Your task to perform on an android device: Add apple airpods to the cart on bestbuy, then select checkout. Image 0: 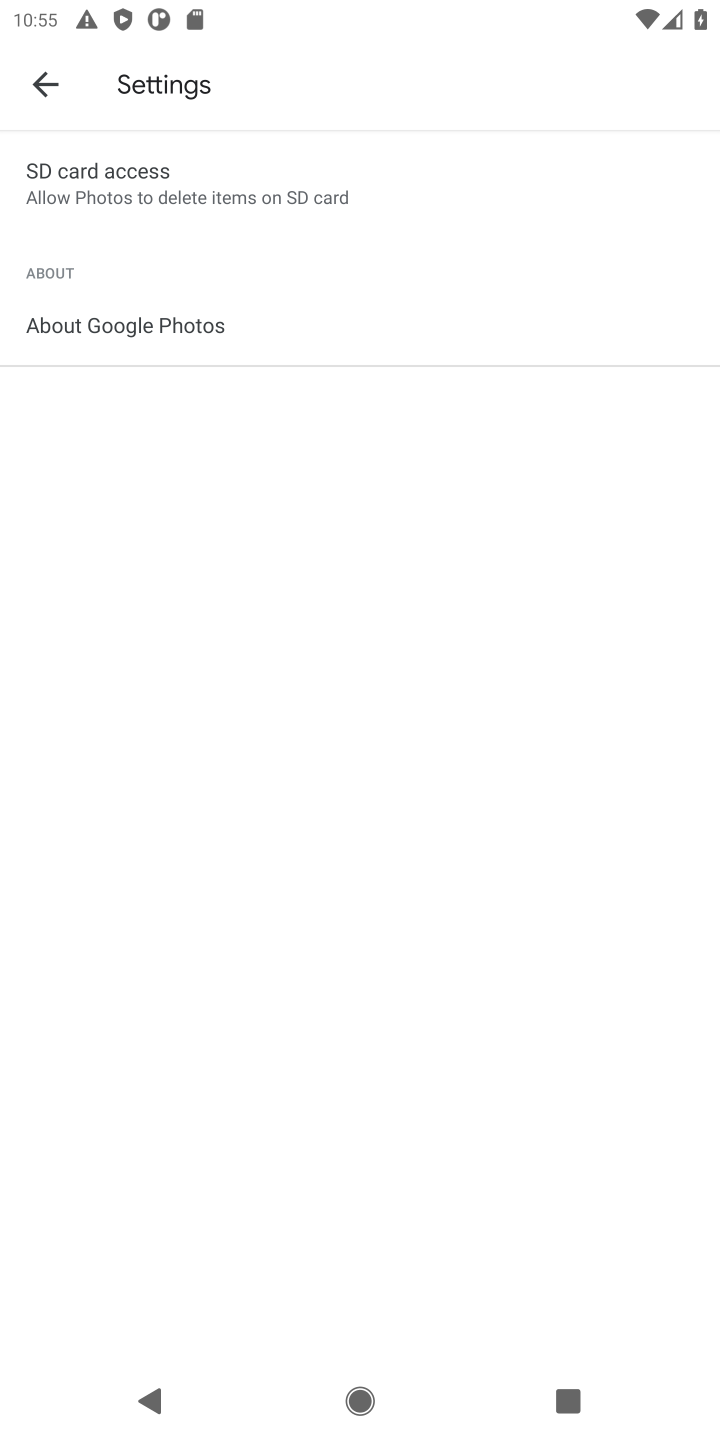
Step 0: press home button
Your task to perform on an android device: Add apple airpods to the cart on bestbuy, then select checkout. Image 1: 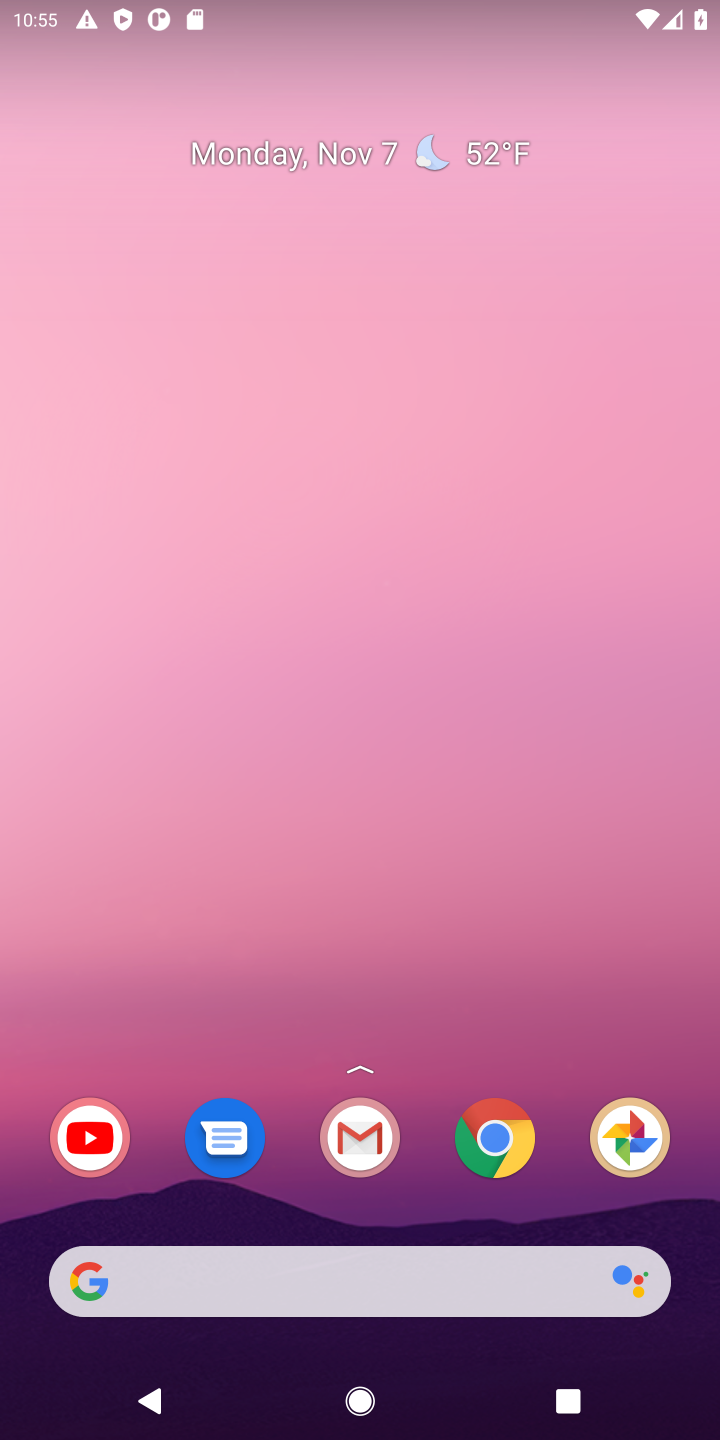
Step 1: click (504, 1167)
Your task to perform on an android device: Add apple airpods to the cart on bestbuy, then select checkout. Image 2: 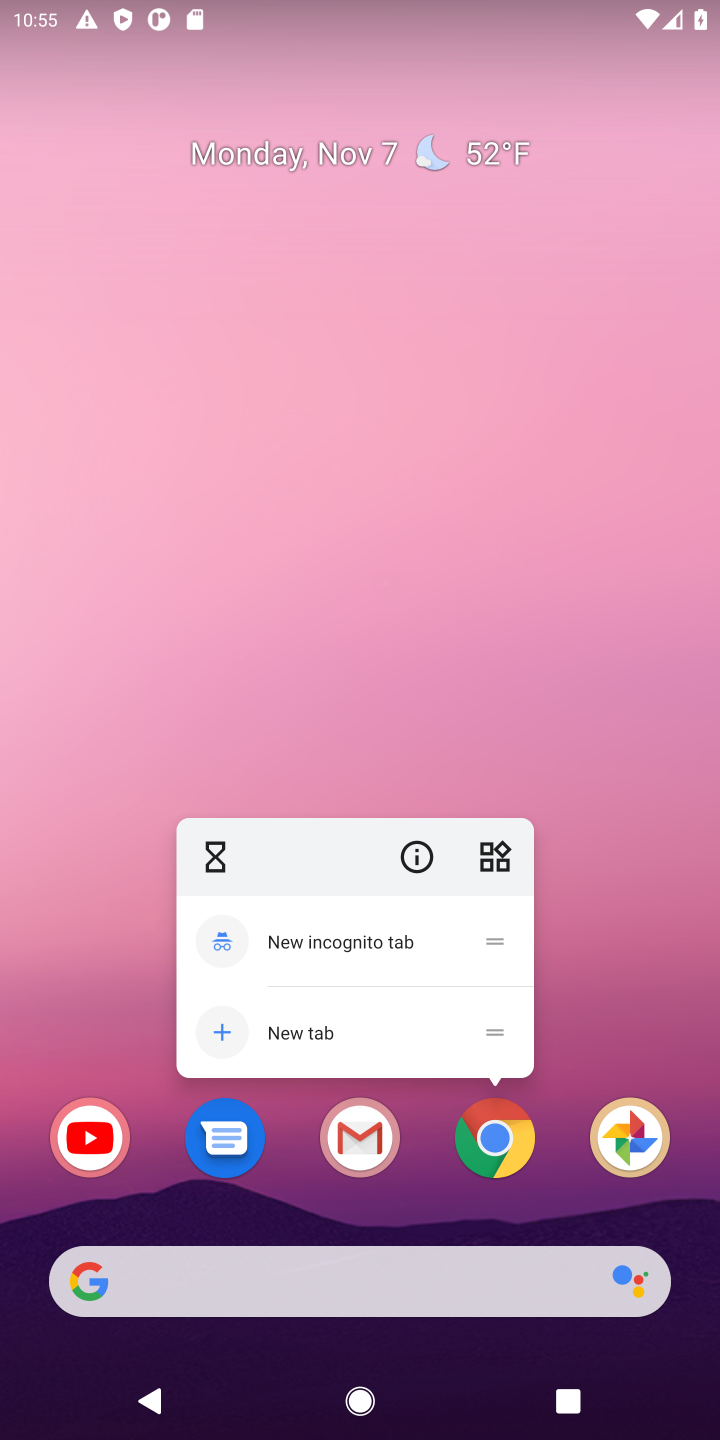
Step 2: click (511, 1159)
Your task to perform on an android device: Add apple airpods to the cart on bestbuy, then select checkout. Image 3: 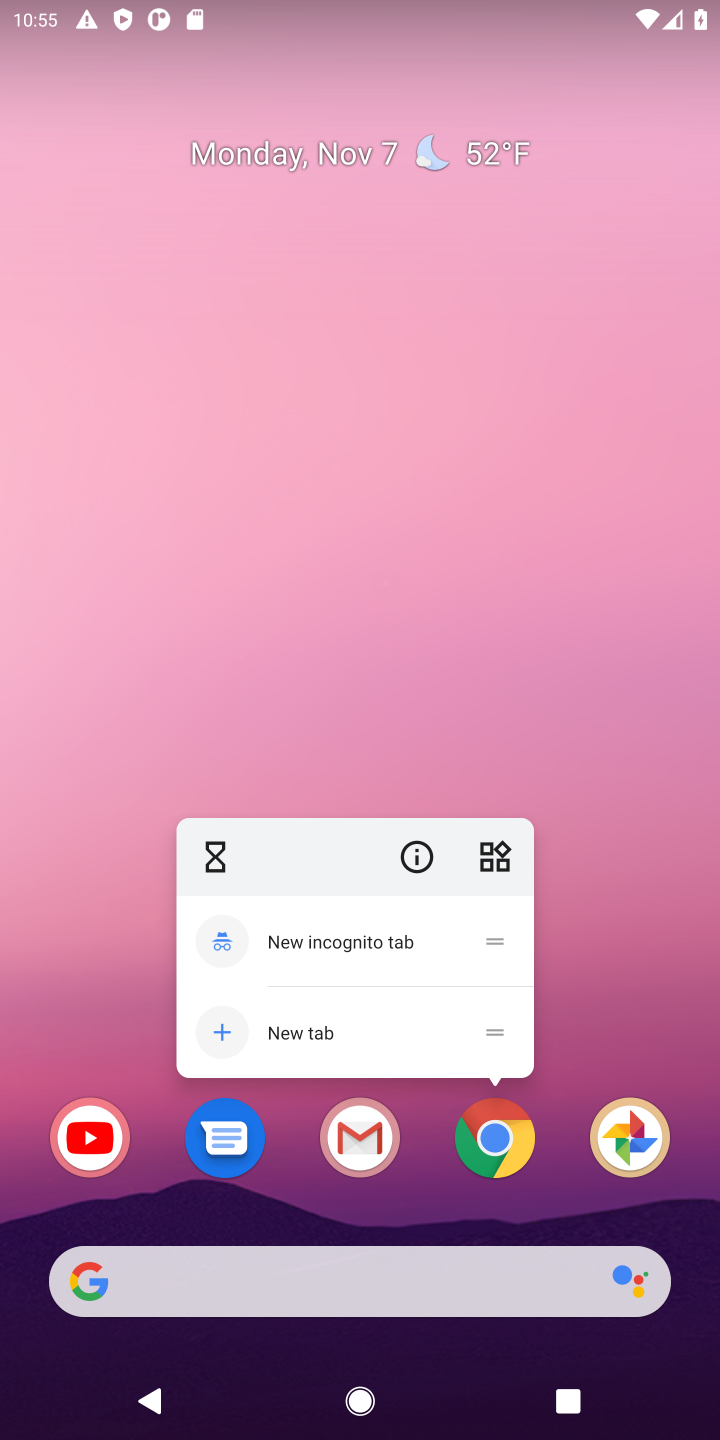
Step 3: click (484, 1165)
Your task to perform on an android device: Add apple airpods to the cart on bestbuy, then select checkout. Image 4: 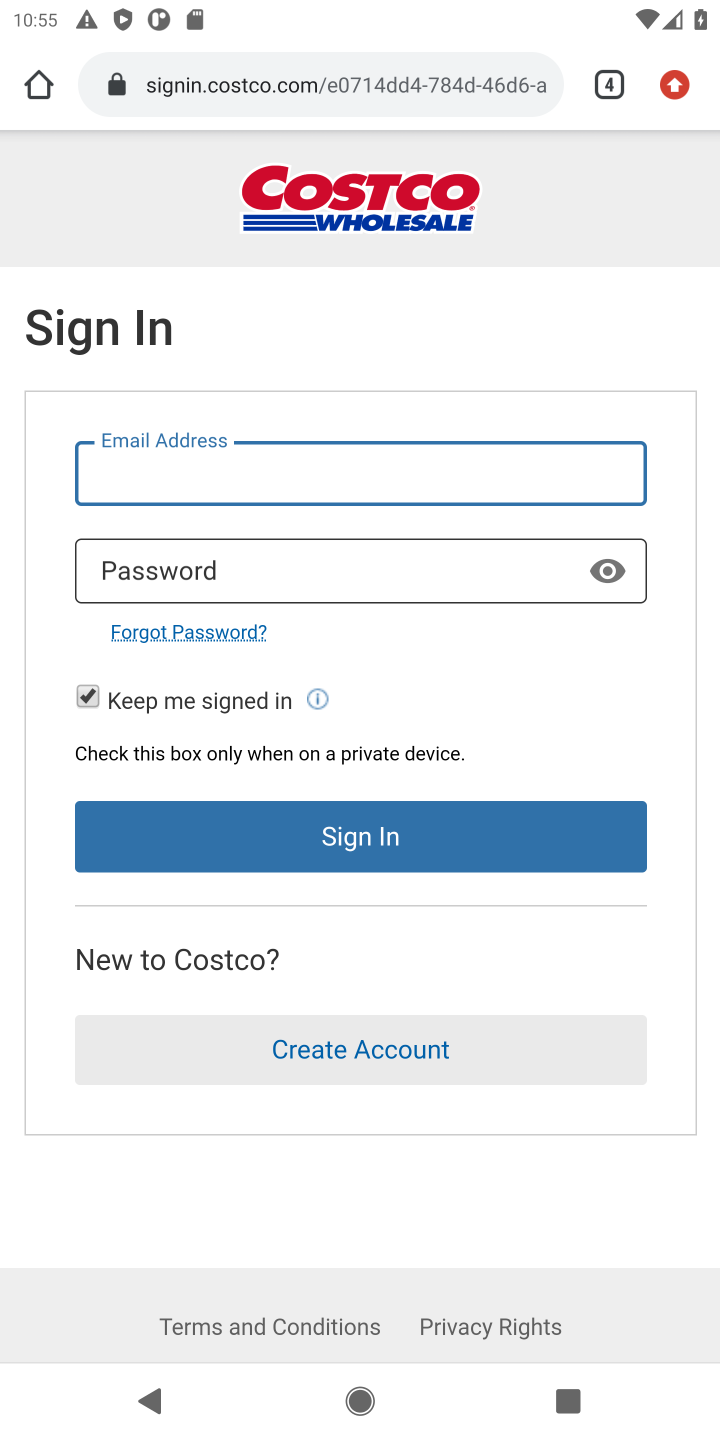
Step 4: click (244, 88)
Your task to perform on an android device: Add apple airpods to the cart on bestbuy, then select checkout. Image 5: 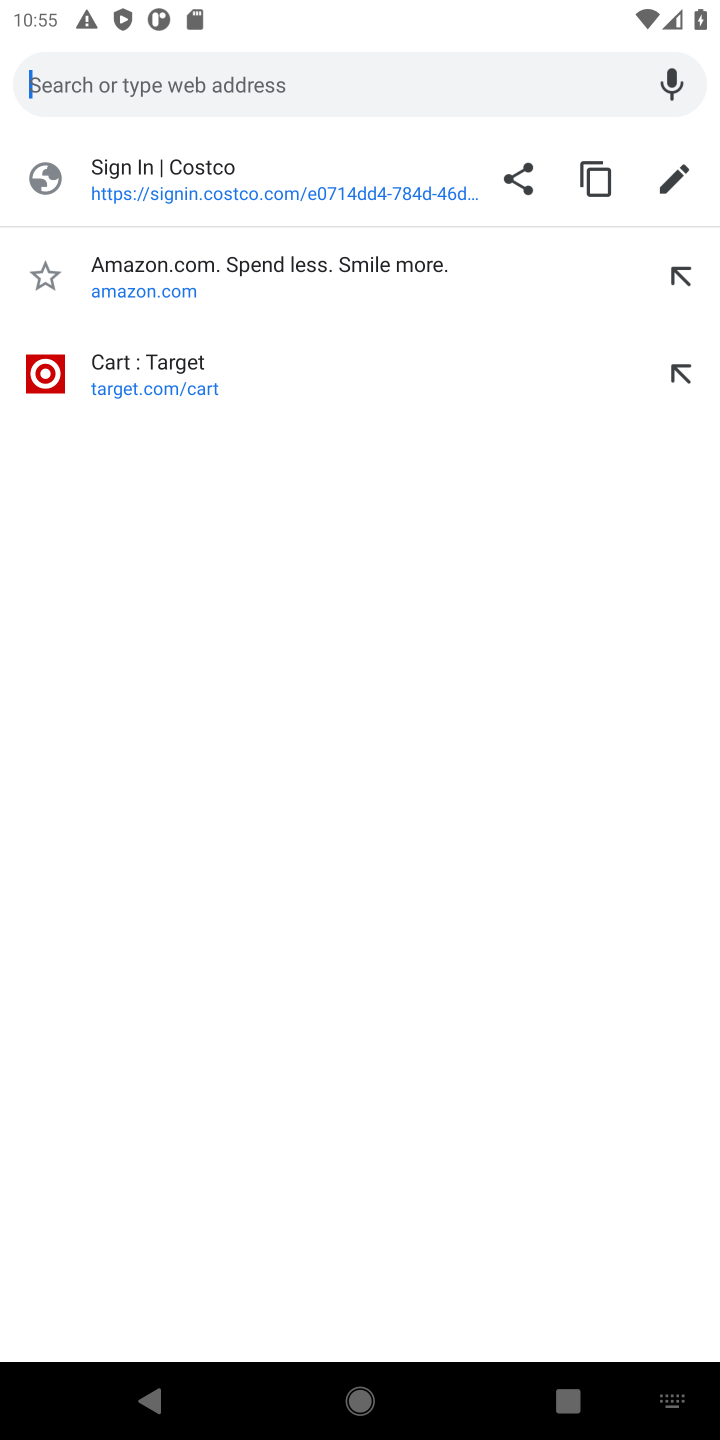
Step 5: type "bestbuy"
Your task to perform on an android device: Add apple airpods to the cart on bestbuy, then select checkout. Image 6: 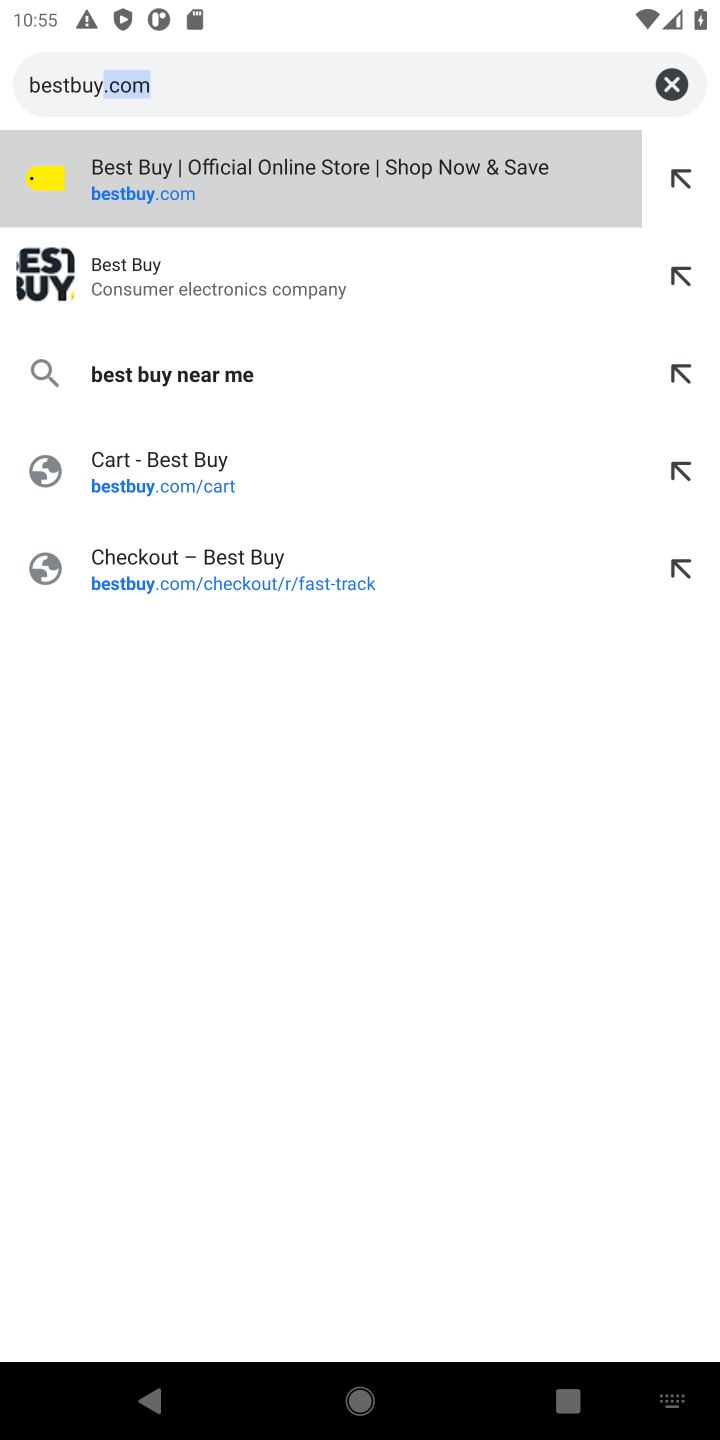
Step 6: click (133, 269)
Your task to perform on an android device: Add apple airpods to the cart on bestbuy, then select checkout. Image 7: 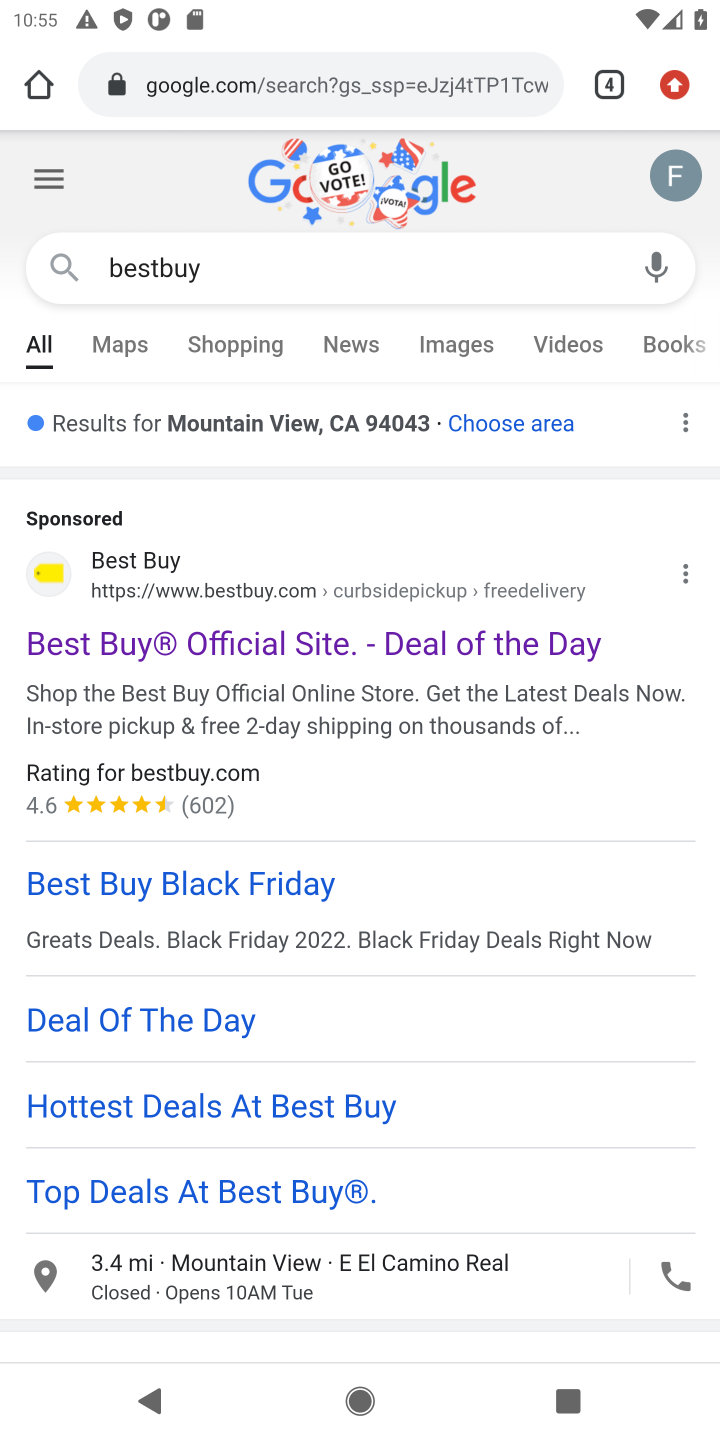
Step 7: click (77, 646)
Your task to perform on an android device: Add apple airpods to the cart on bestbuy, then select checkout. Image 8: 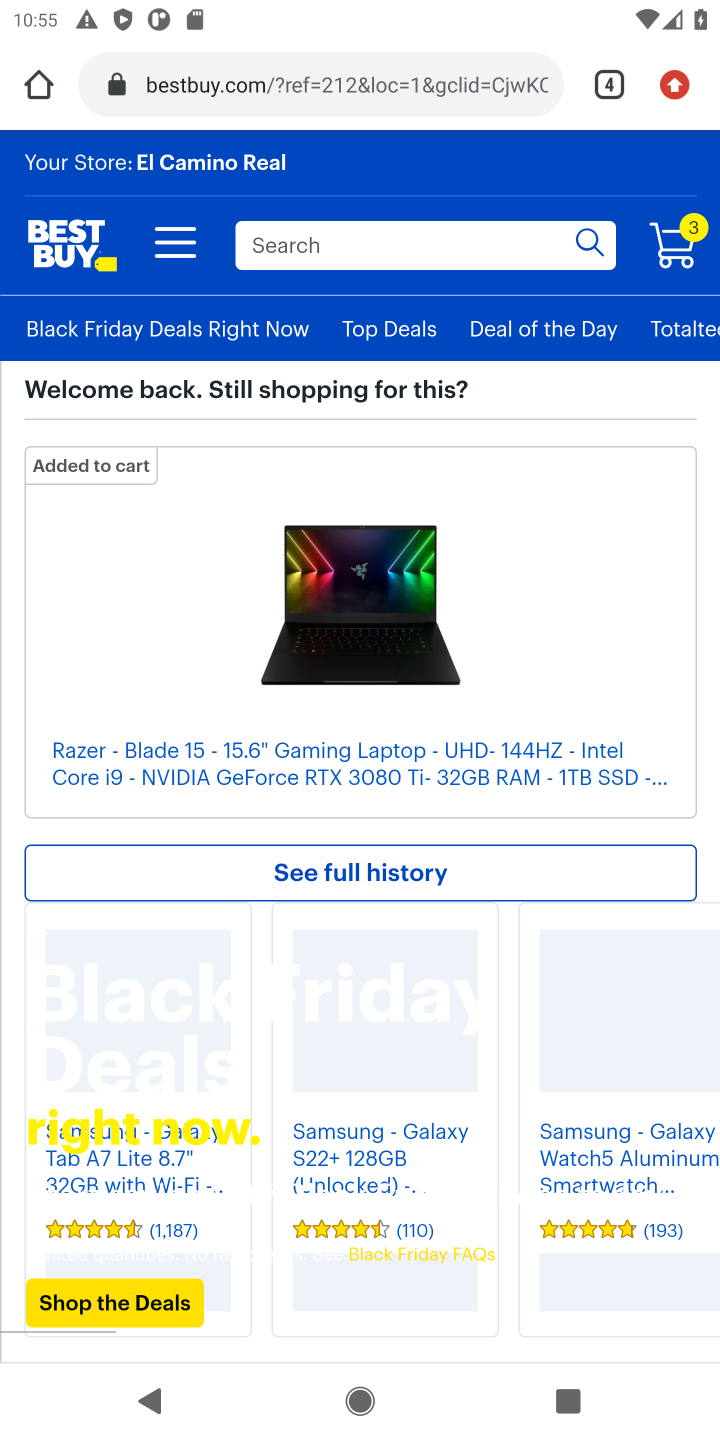
Step 8: click (528, 259)
Your task to perform on an android device: Add apple airpods to the cart on bestbuy, then select checkout. Image 9: 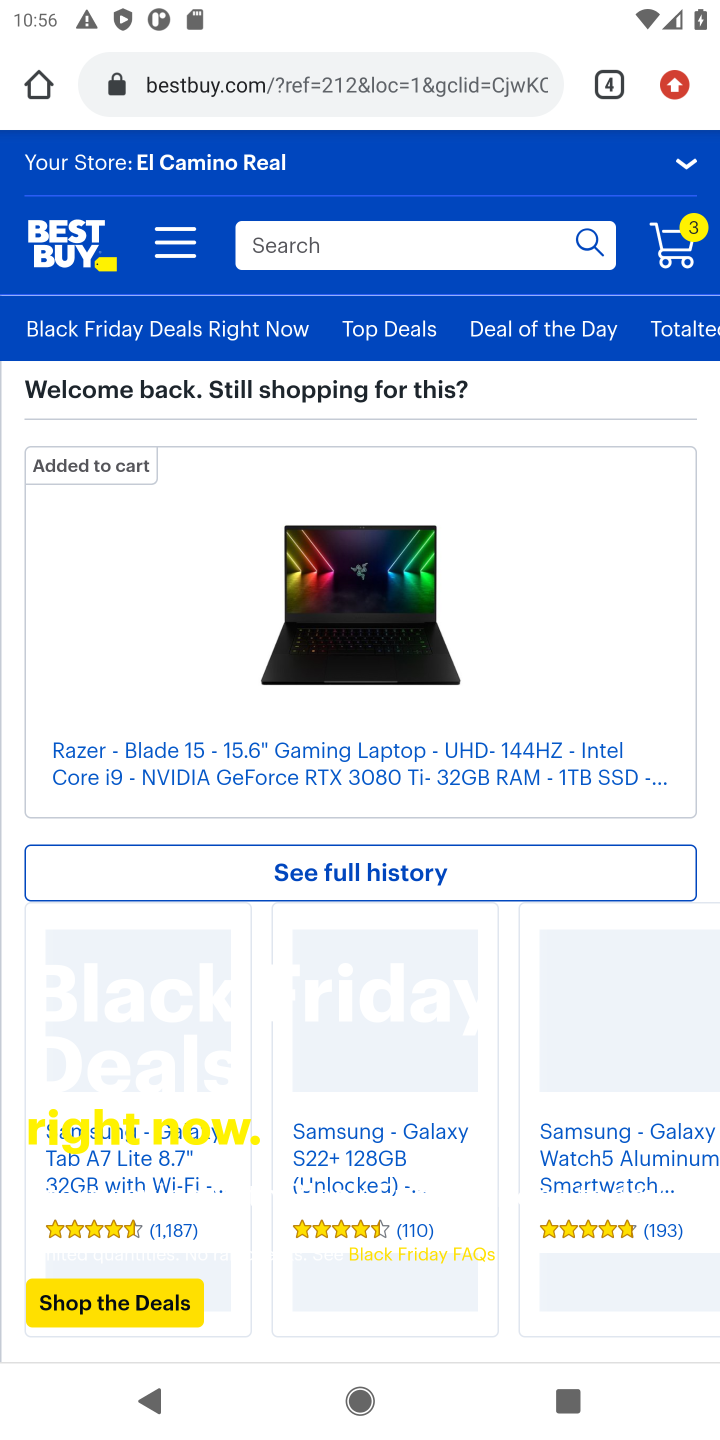
Step 9: type "apple airpods"
Your task to perform on an android device: Add apple airpods to the cart on bestbuy, then select checkout. Image 10: 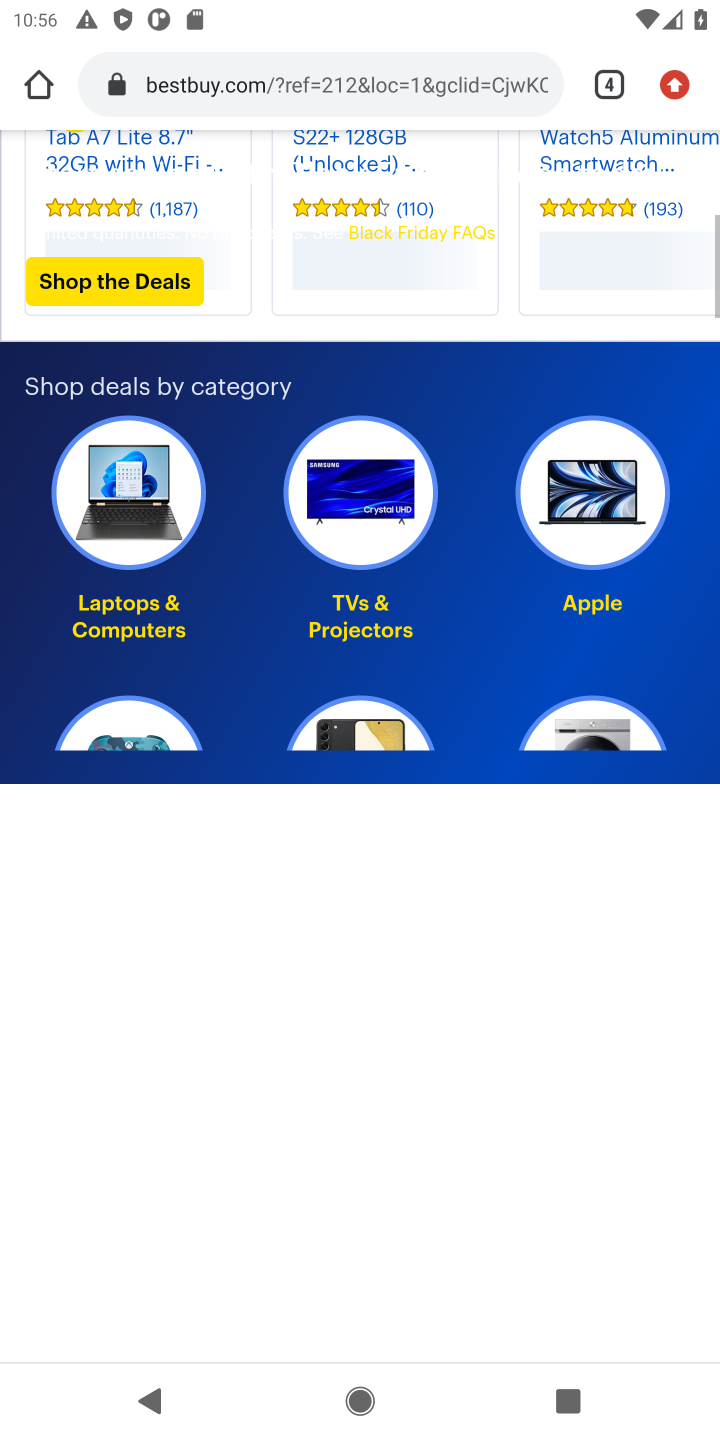
Step 10: type ""
Your task to perform on an android device: Add apple airpods to the cart on bestbuy, then select checkout. Image 11: 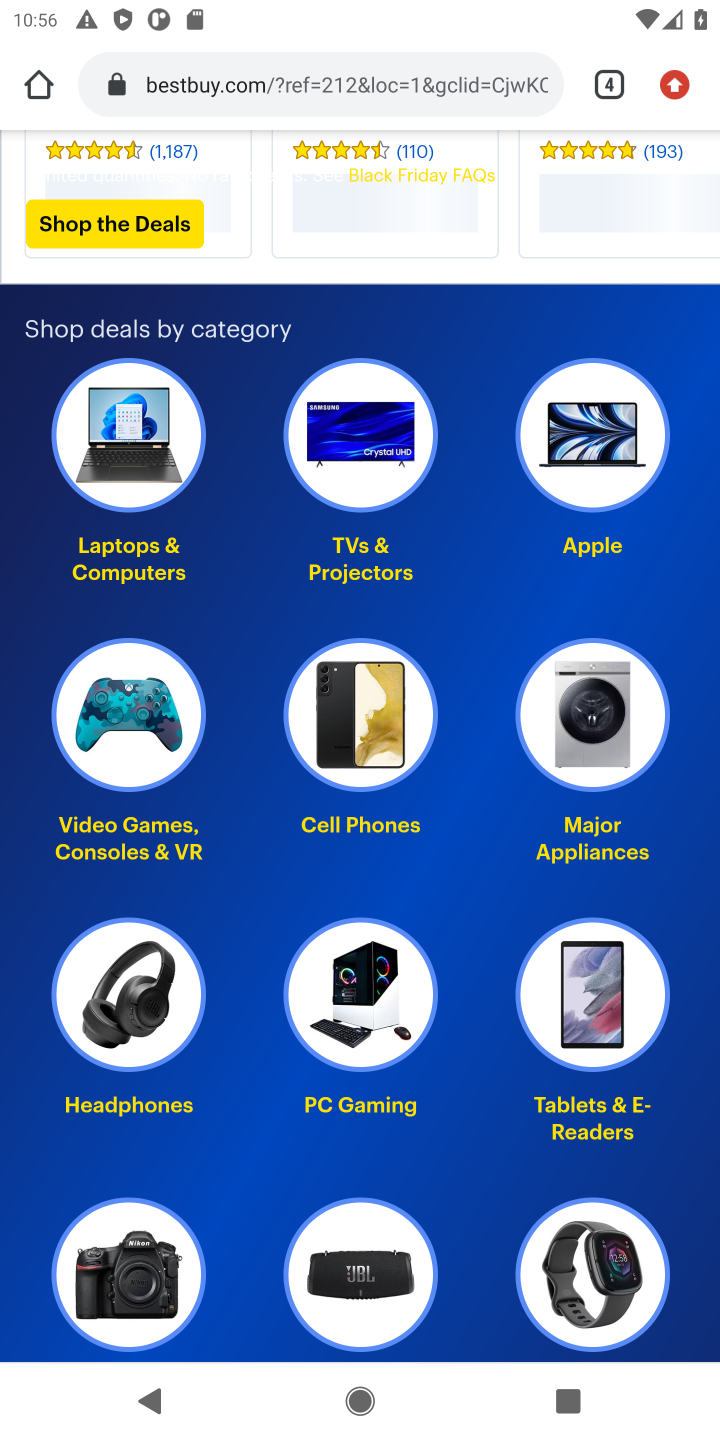
Step 11: drag from (420, 515) to (416, 995)
Your task to perform on an android device: Add apple airpods to the cart on bestbuy, then select checkout. Image 12: 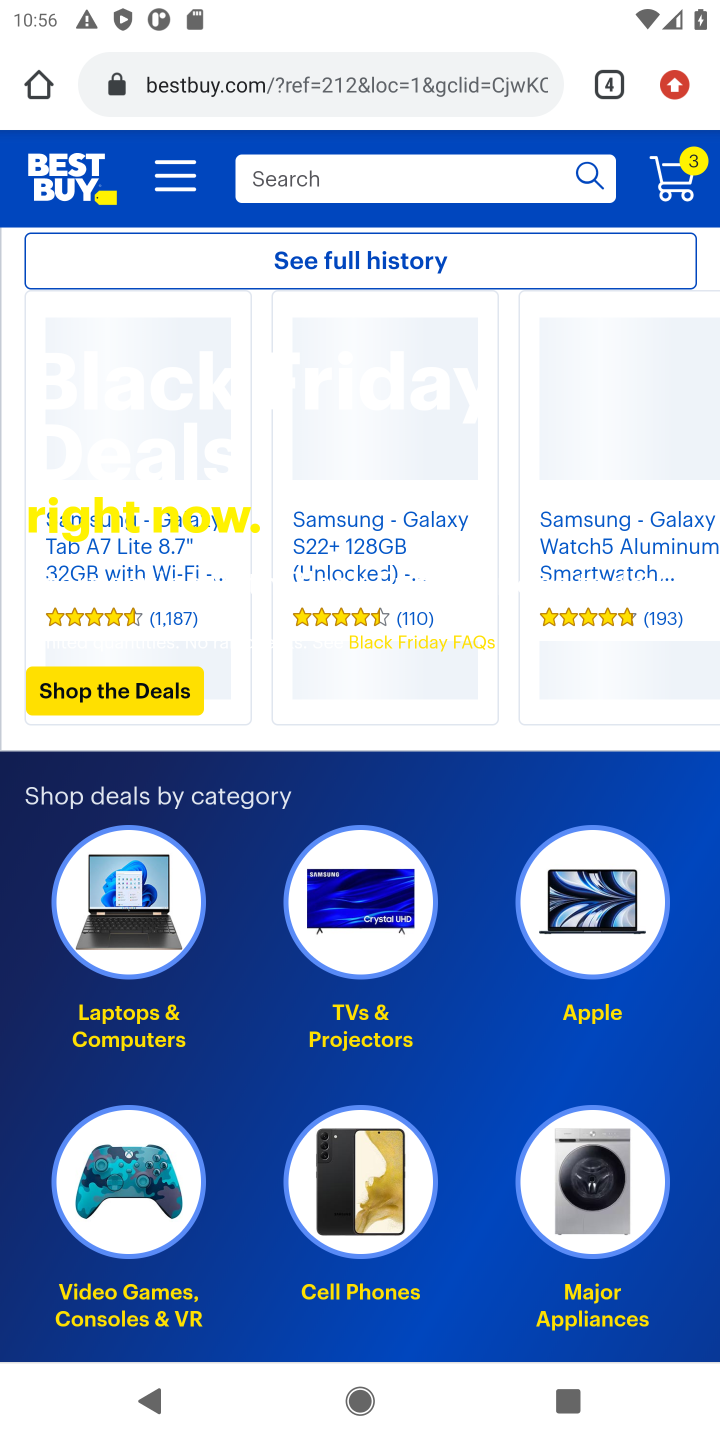
Step 12: click (374, 179)
Your task to perform on an android device: Add apple airpods to the cart on bestbuy, then select checkout. Image 13: 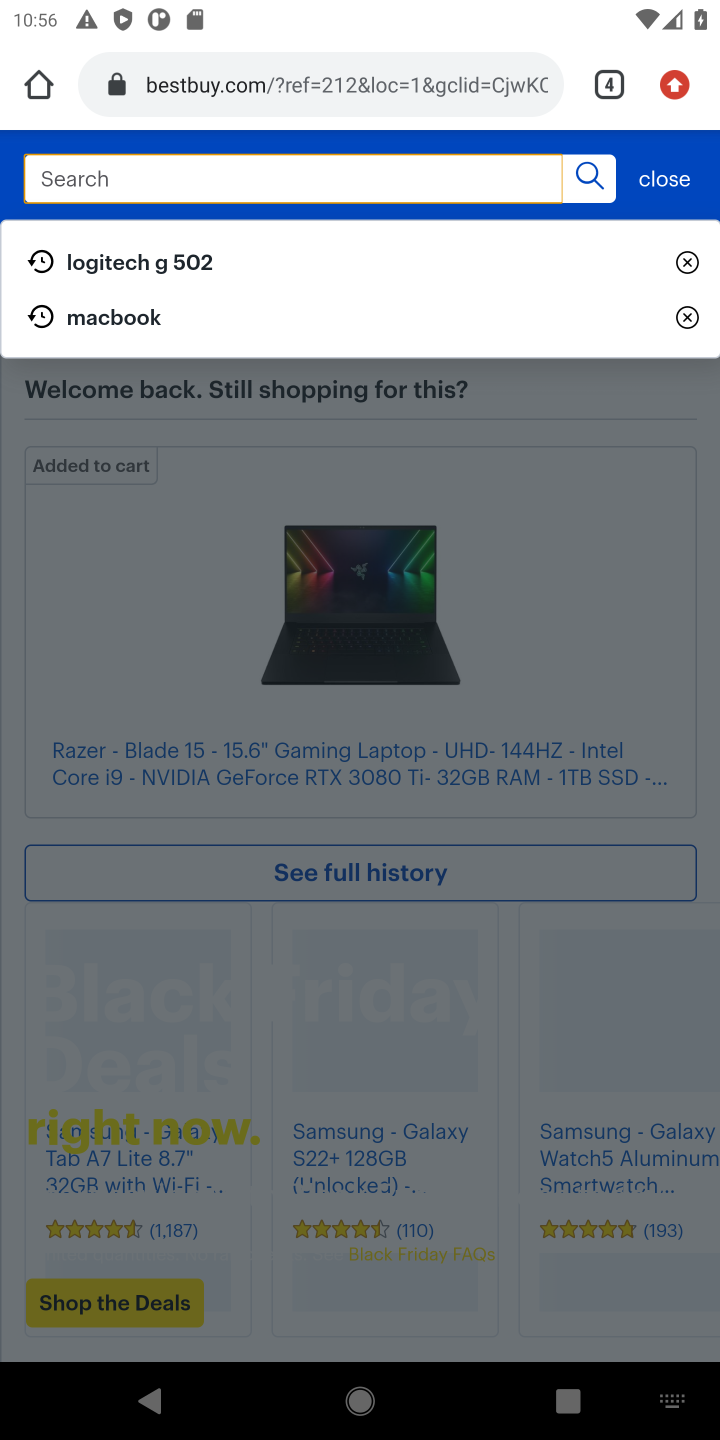
Step 13: type "apple airpods"
Your task to perform on an android device: Add apple airpods to the cart on bestbuy, then select checkout. Image 14: 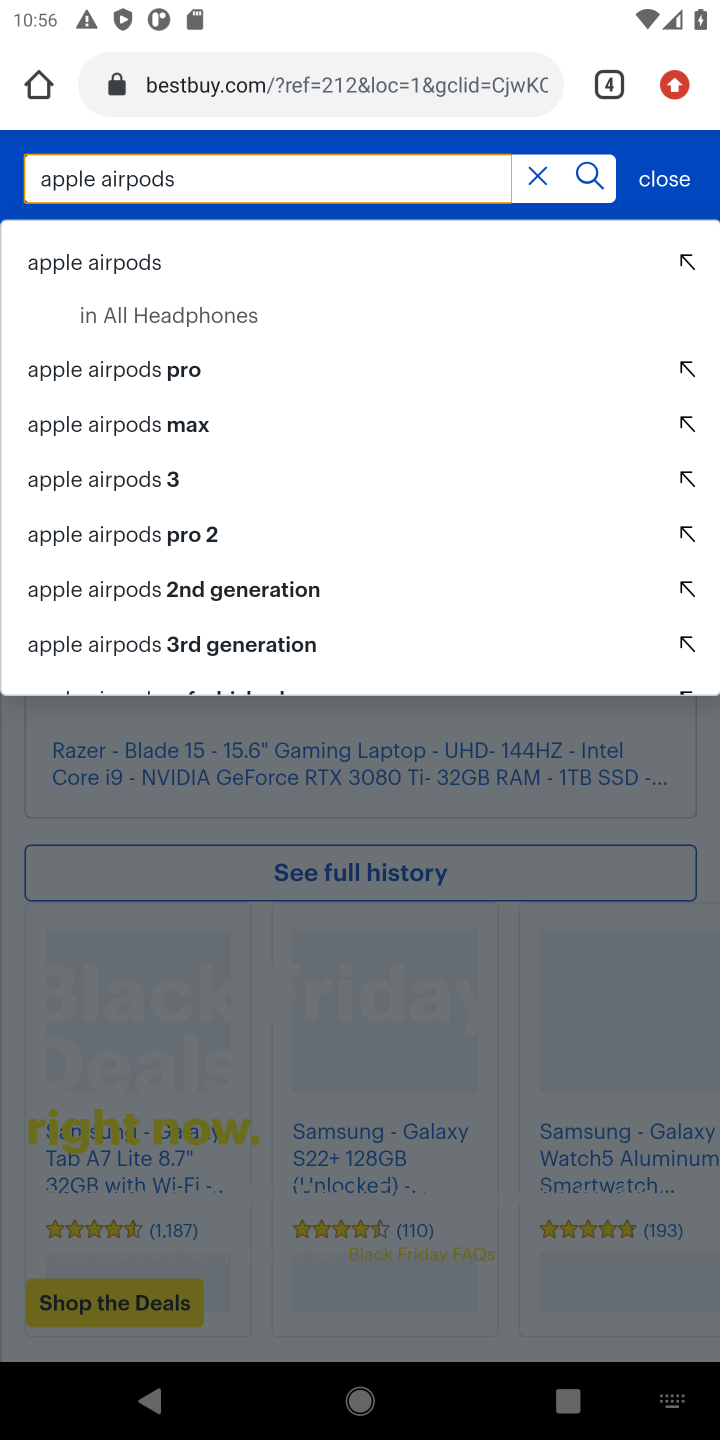
Step 14: click (126, 264)
Your task to perform on an android device: Add apple airpods to the cart on bestbuy, then select checkout. Image 15: 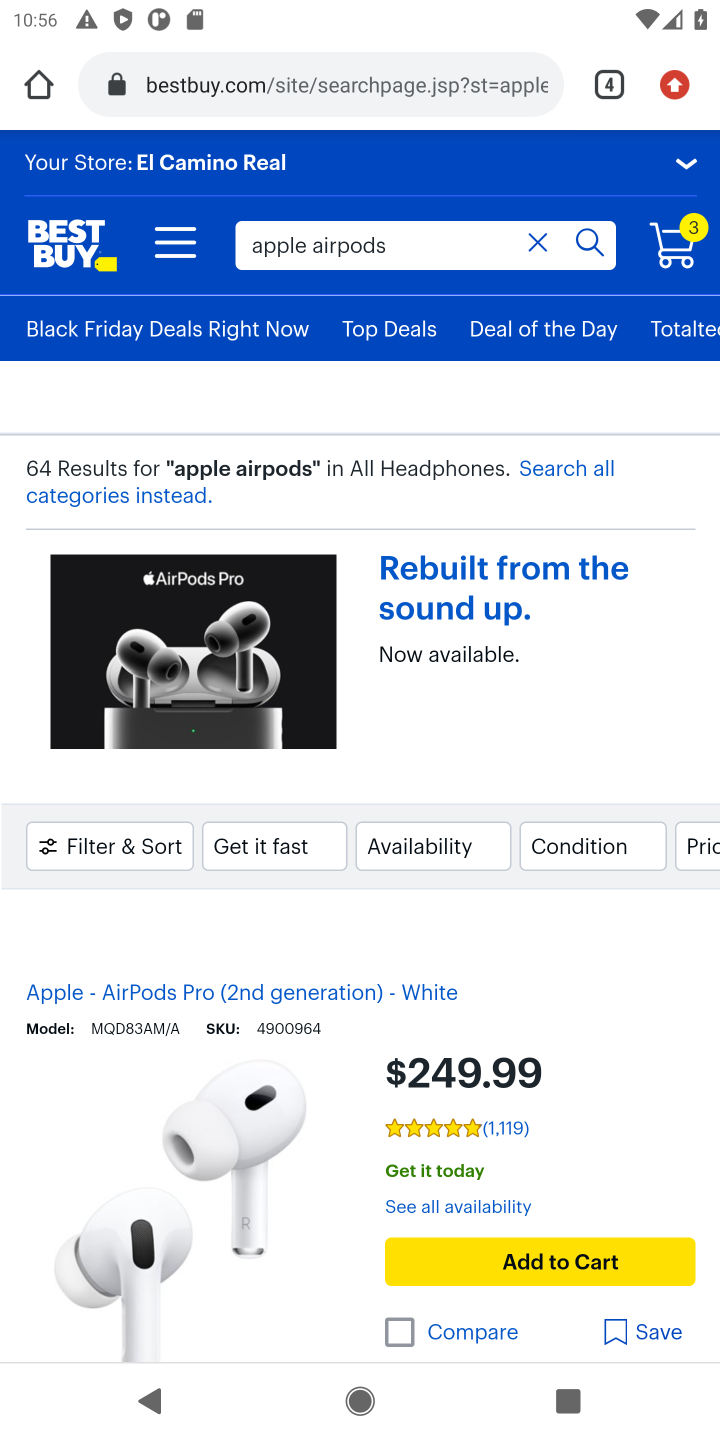
Step 15: drag from (149, 1105) to (243, 288)
Your task to perform on an android device: Add apple airpods to the cart on bestbuy, then select checkout. Image 16: 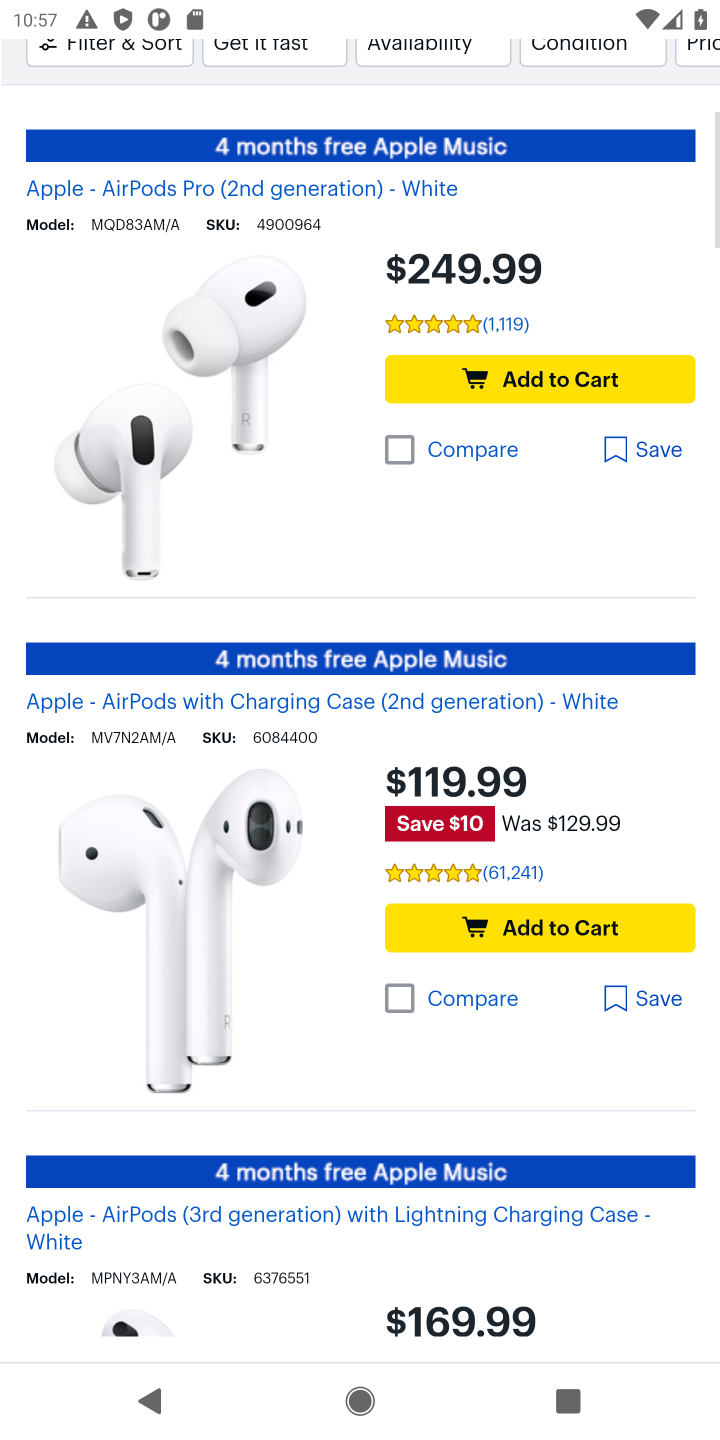
Step 16: click (153, 995)
Your task to perform on an android device: Add apple airpods to the cart on bestbuy, then select checkout. Image 17: 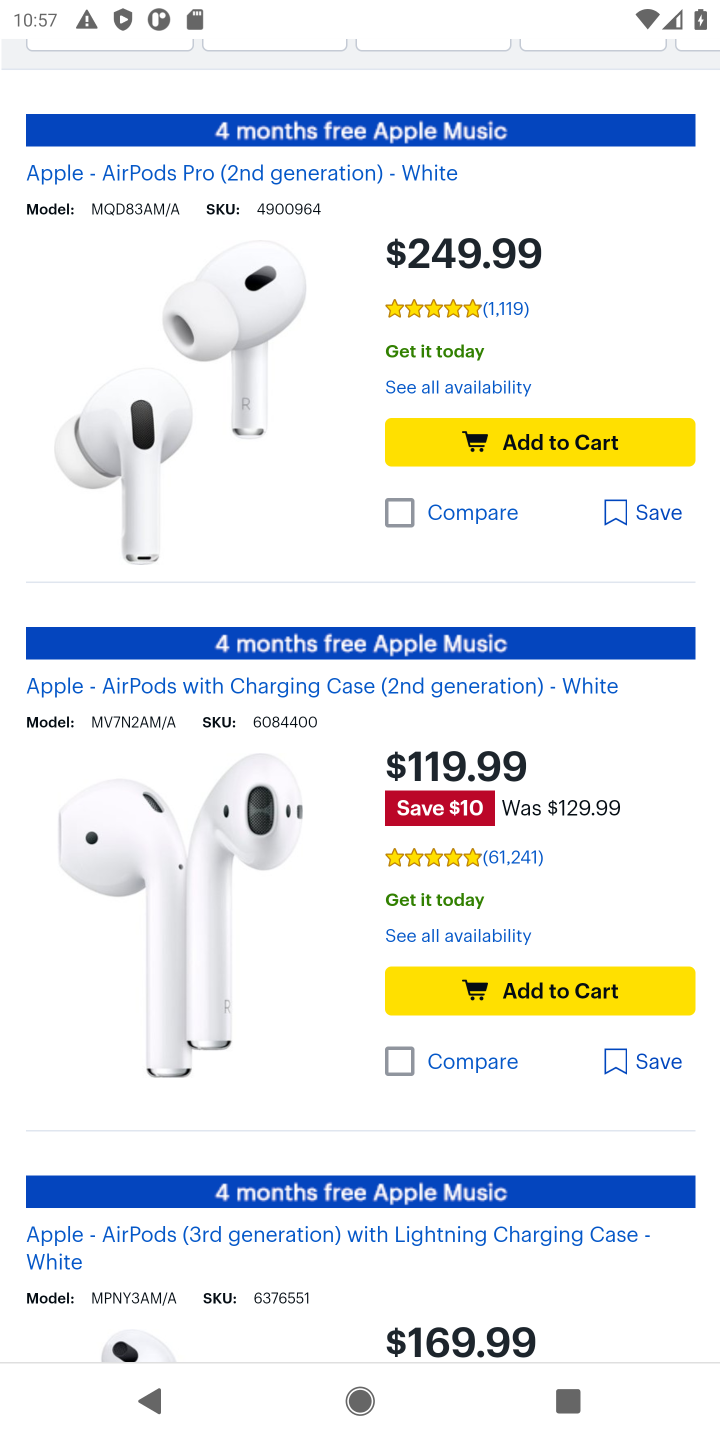
Step 17: click (182, 900)
Your task to perform on an android device: Add apple airpods to the cart on bestbuy, then select checkout. Image 18: 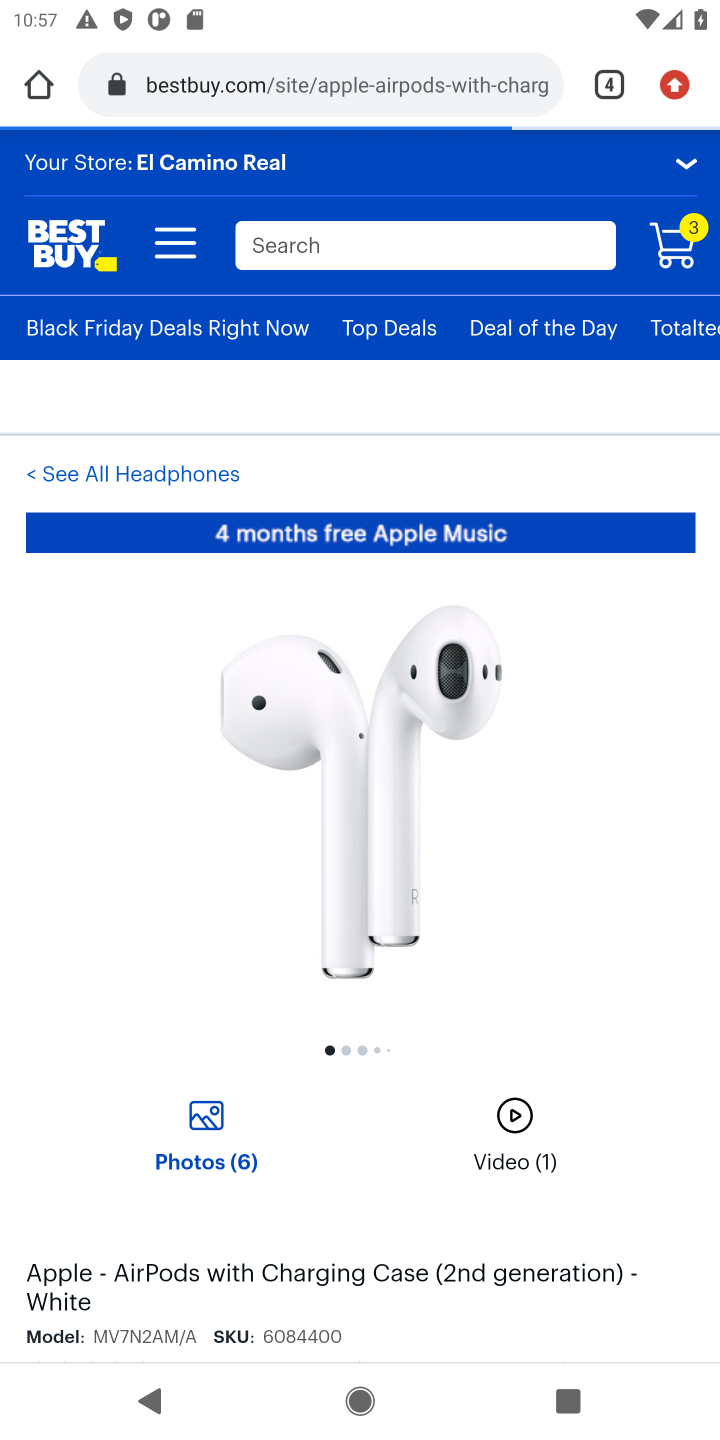
Step 18: drag from (342, 1044) to (340, 355)
Your task to perform on an android device: Add apple airpods to the cart on bestbuy, then select checkout. Image 19: 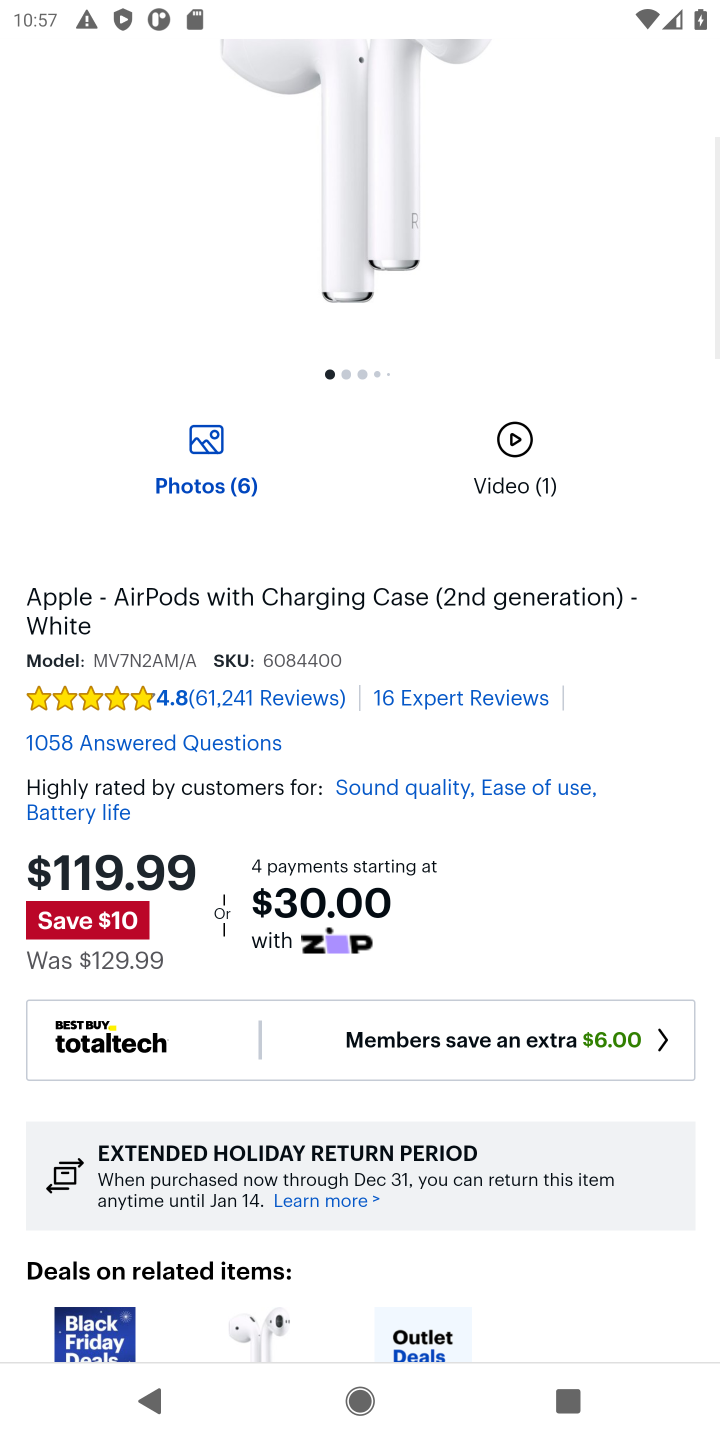
Step 19: drag from (306, 757) to (365, 42)
Your task to perform on an android device: Add apple airpods to the cart on bestbuy, then select checkout. Image 20: 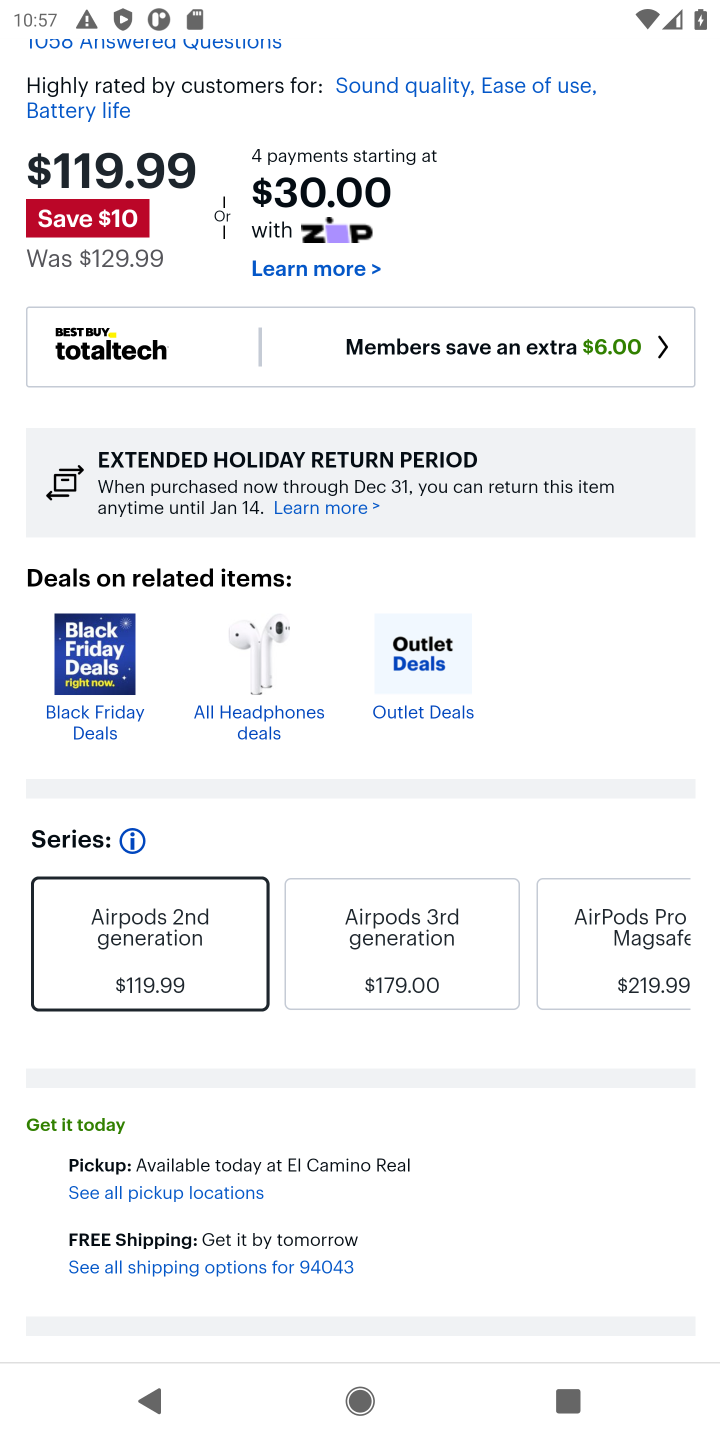
Step 20: drag from (399, 1244) to (445, 244)
Your task to perform on an android device: Add apple airpods to the cart on bestbuy, then select checkout. Image 21: 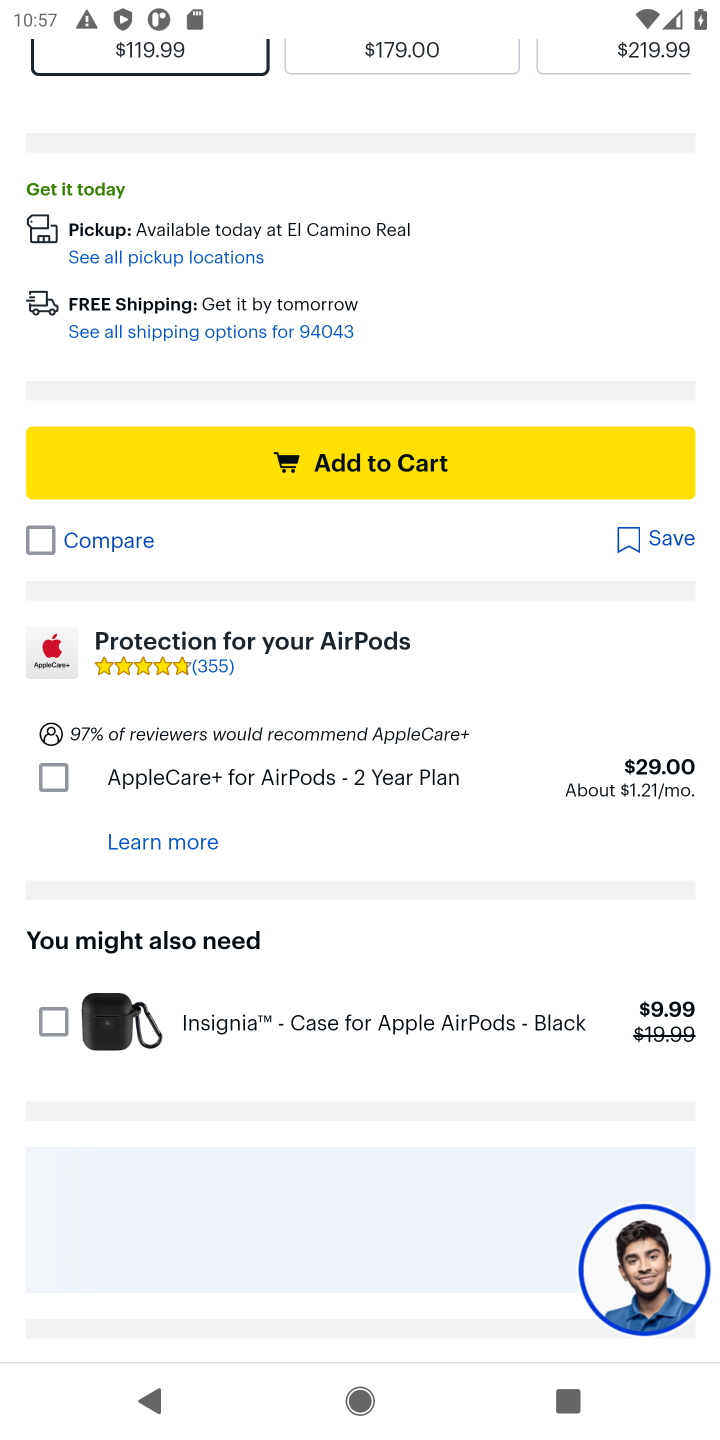
Step 21: click (376, 448)
Your task to perform on an android device: Add apple airpods to the cart on bestbuy, then select checkout. Image 22: 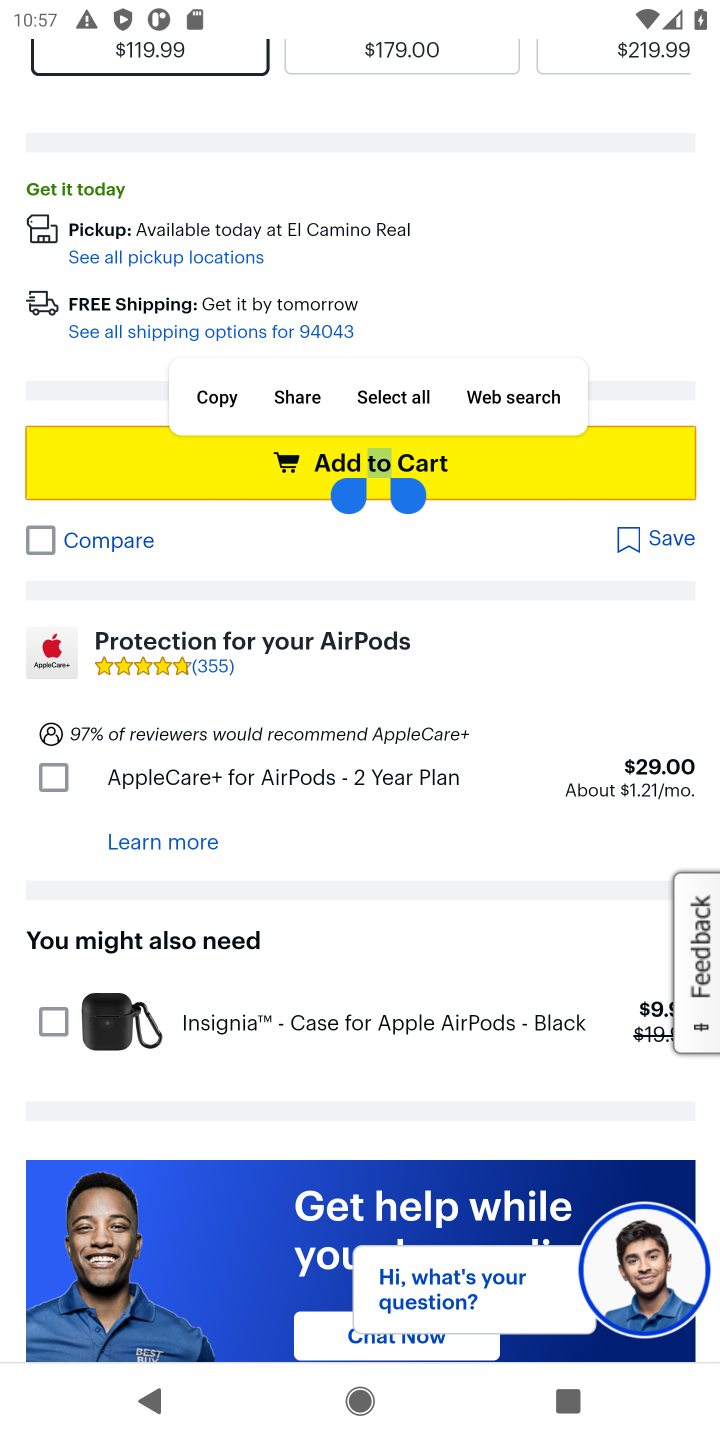
Step 22: click (360, 451)
Your task to perform on an android device: Add apple airpods to the cart on bestbuy, then select checkout. Image 23: 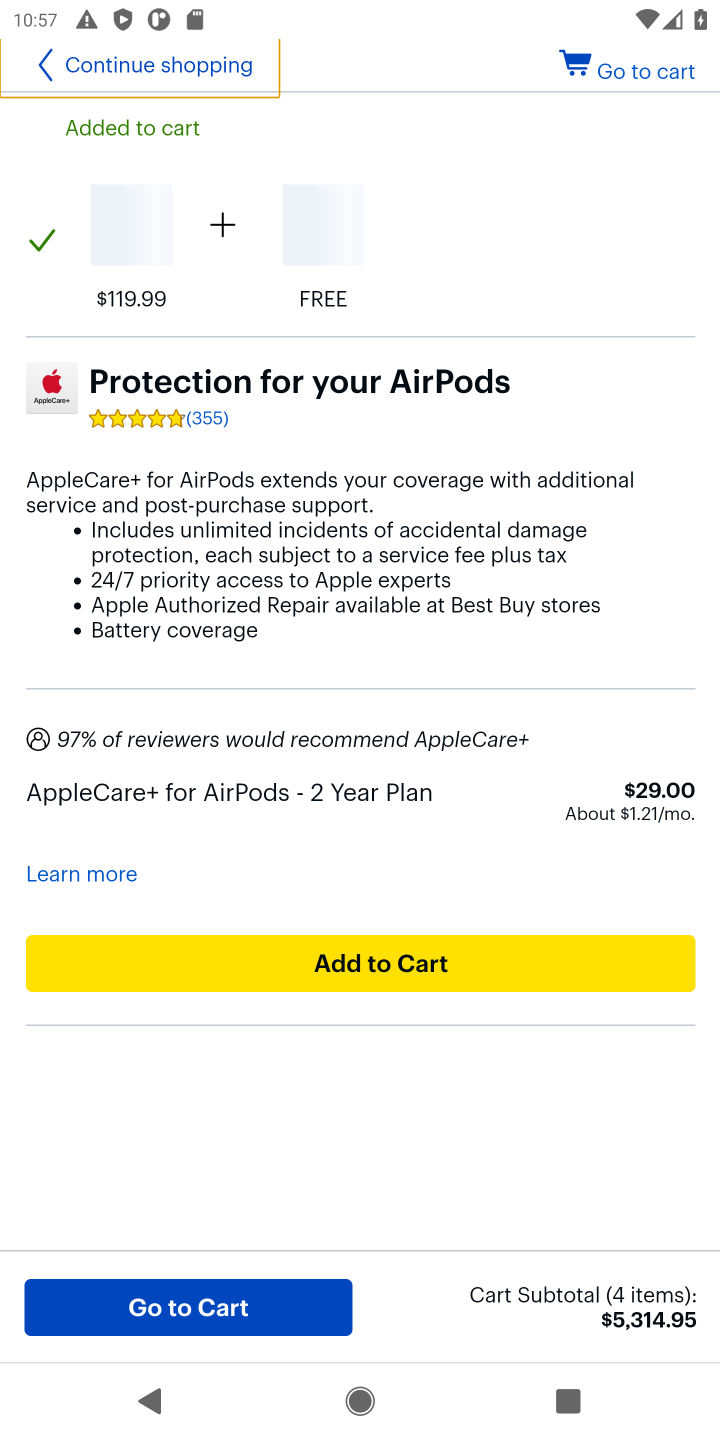
Step 23: click (183, 1313)
Your task to perform on an android device: Add apple airpods to the cart on bestbuy, then select checkout. Image 24: 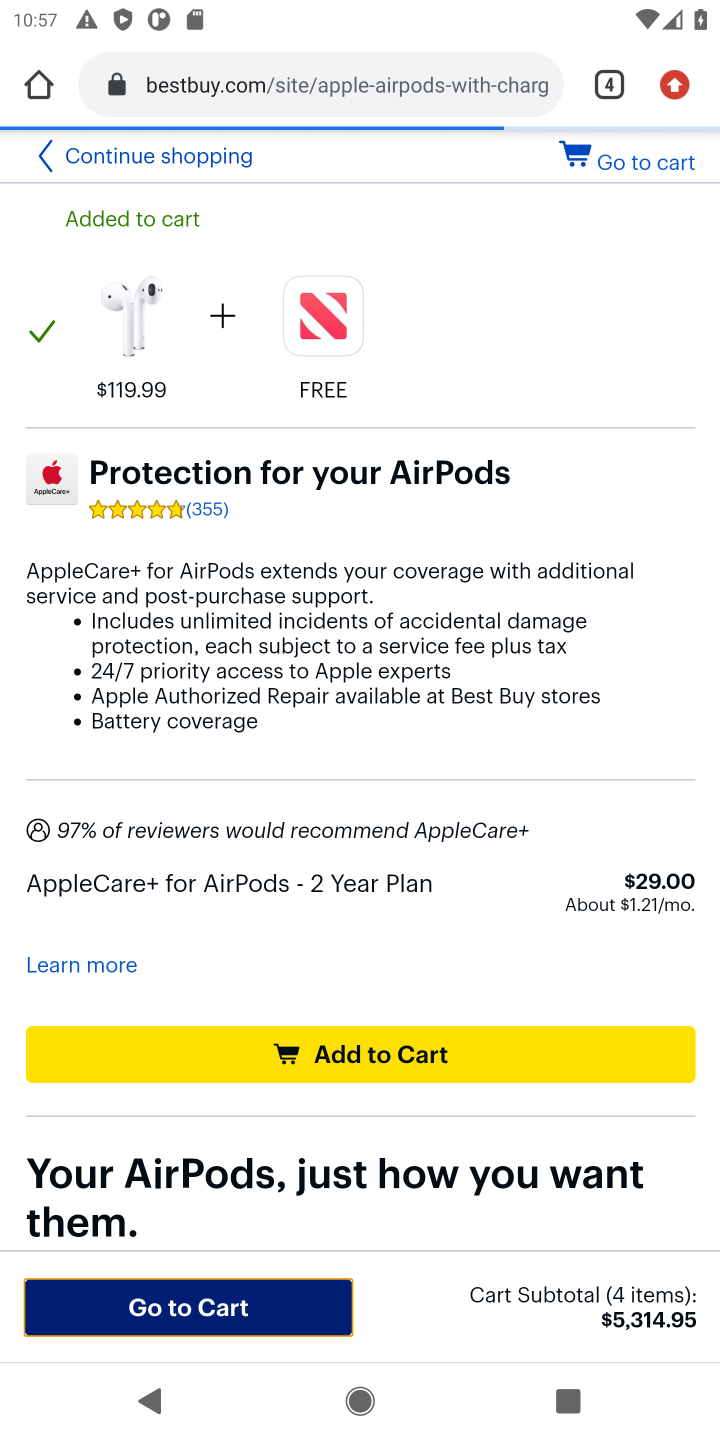
Step 24: drag from (371, 960) to (428, 445)
Your task to perform on an android device: Add apple airpods to the cart on bestbuy, then select checkout. Image 25: 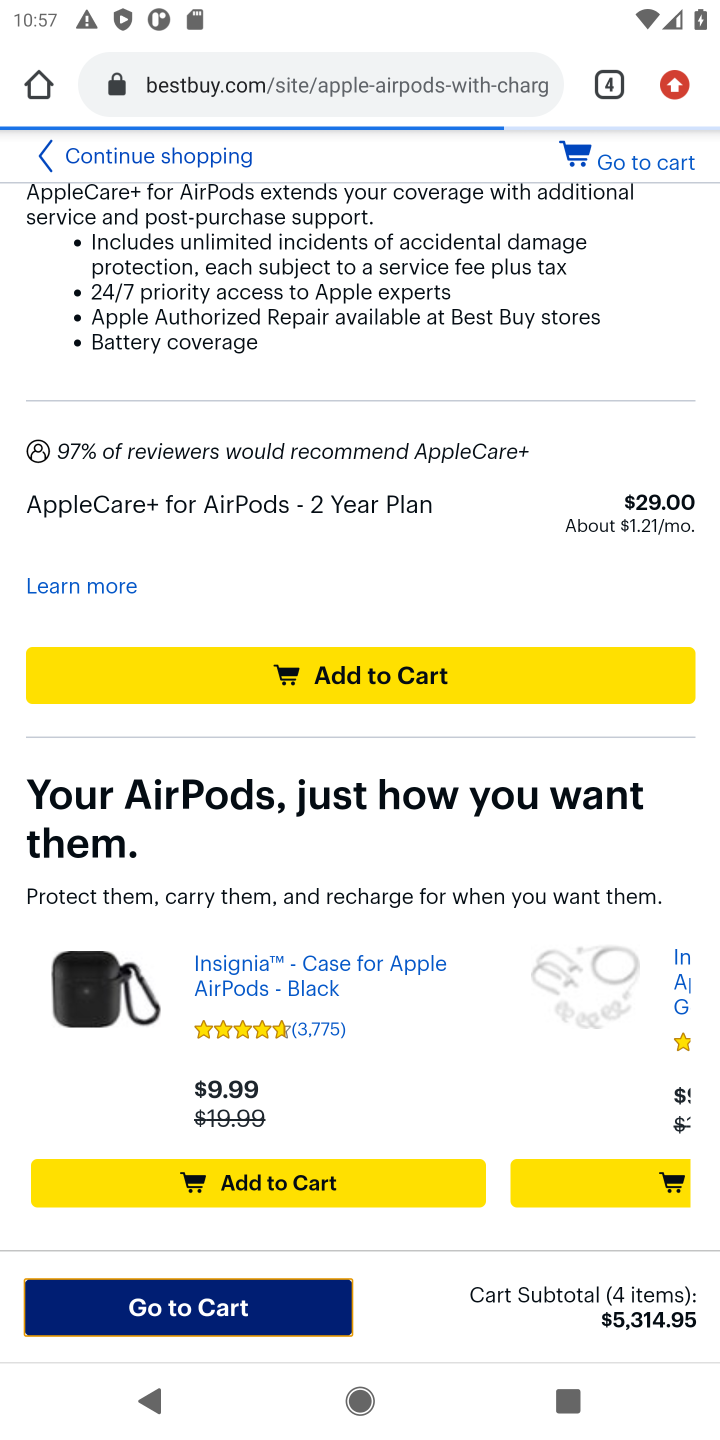
Step 25: click (651, 159)
Your task to perform on an android device: Add apple airpods to the cart on bestbuy, then select checkout. Image 26: 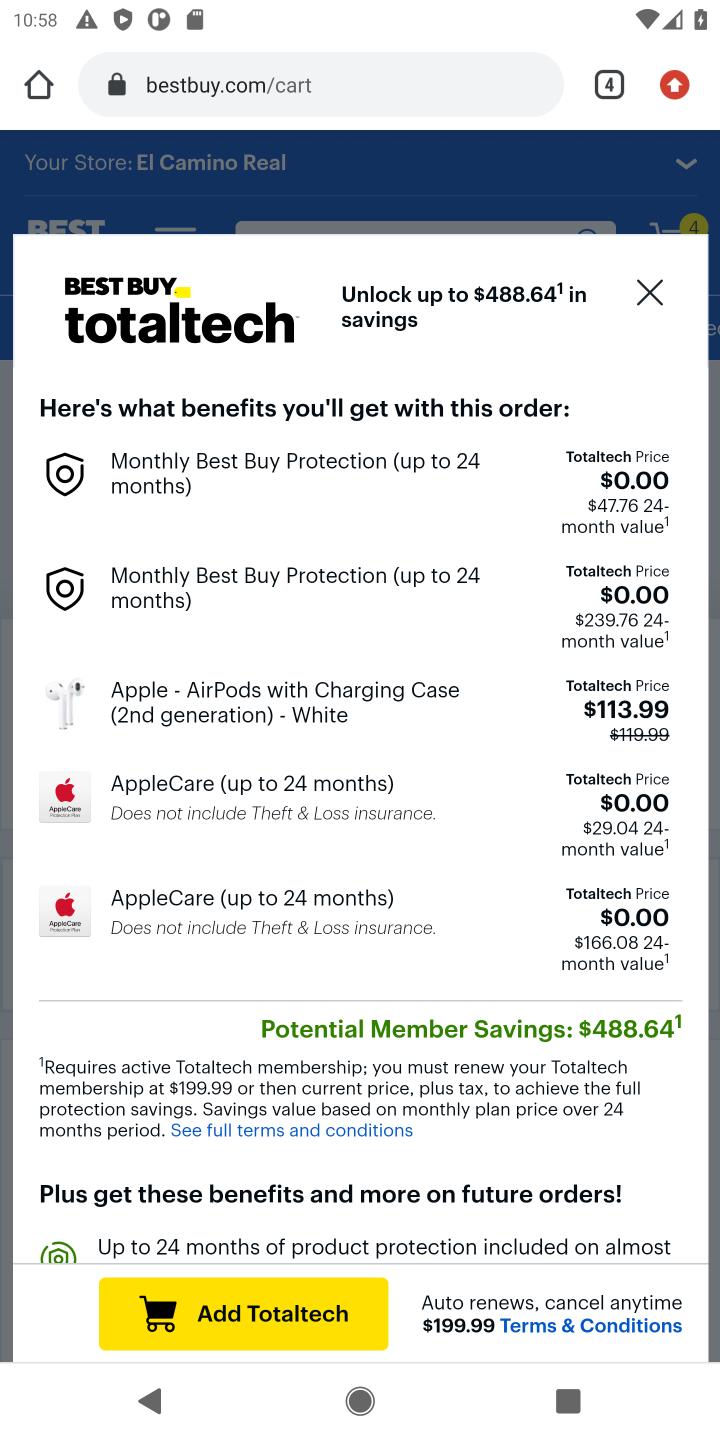
Step 26: click (650, 284)
Your task to perform on an android device: Add apple airpods to the cart on bestbuy, then select checkout. Image 27: 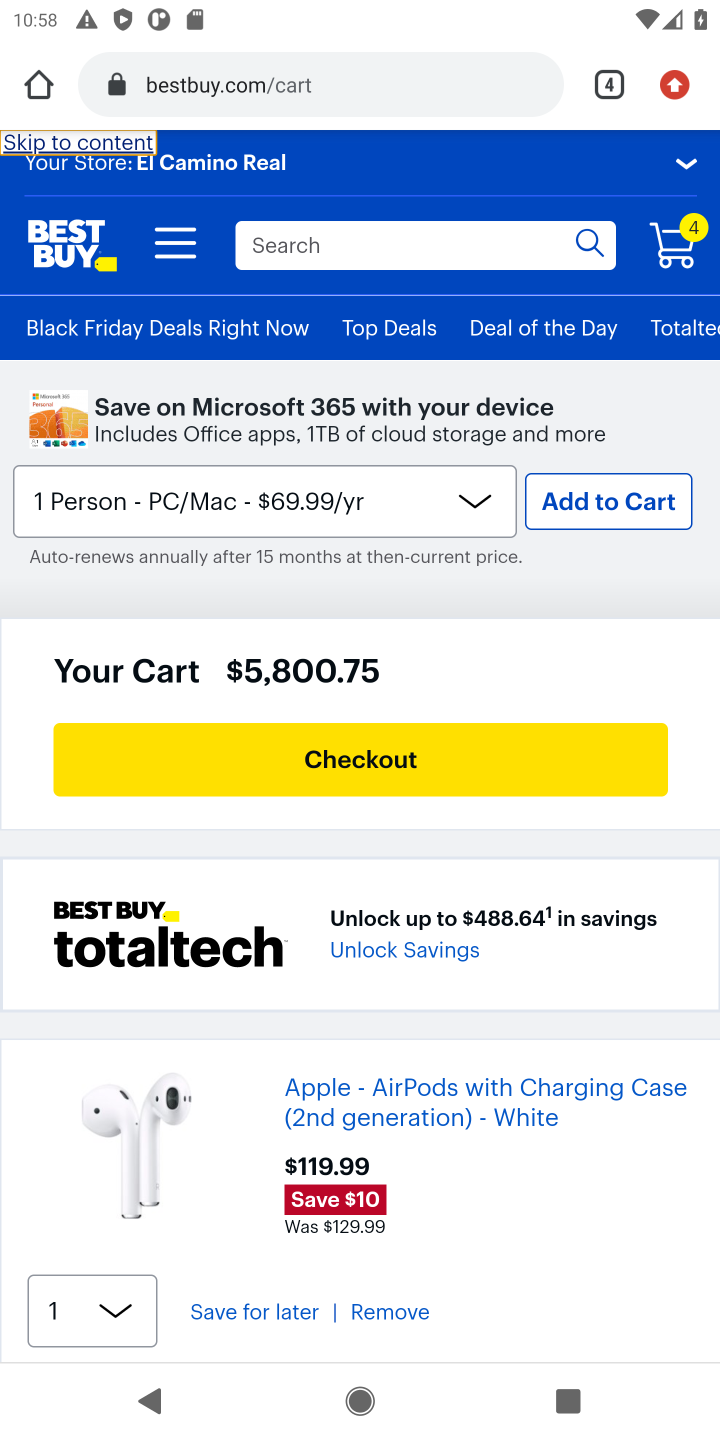
Step 27: click (387, 765)
Your task to perform on an android device: Add apple airpods to the cart on bestbuy, then select checkout. Image 28: 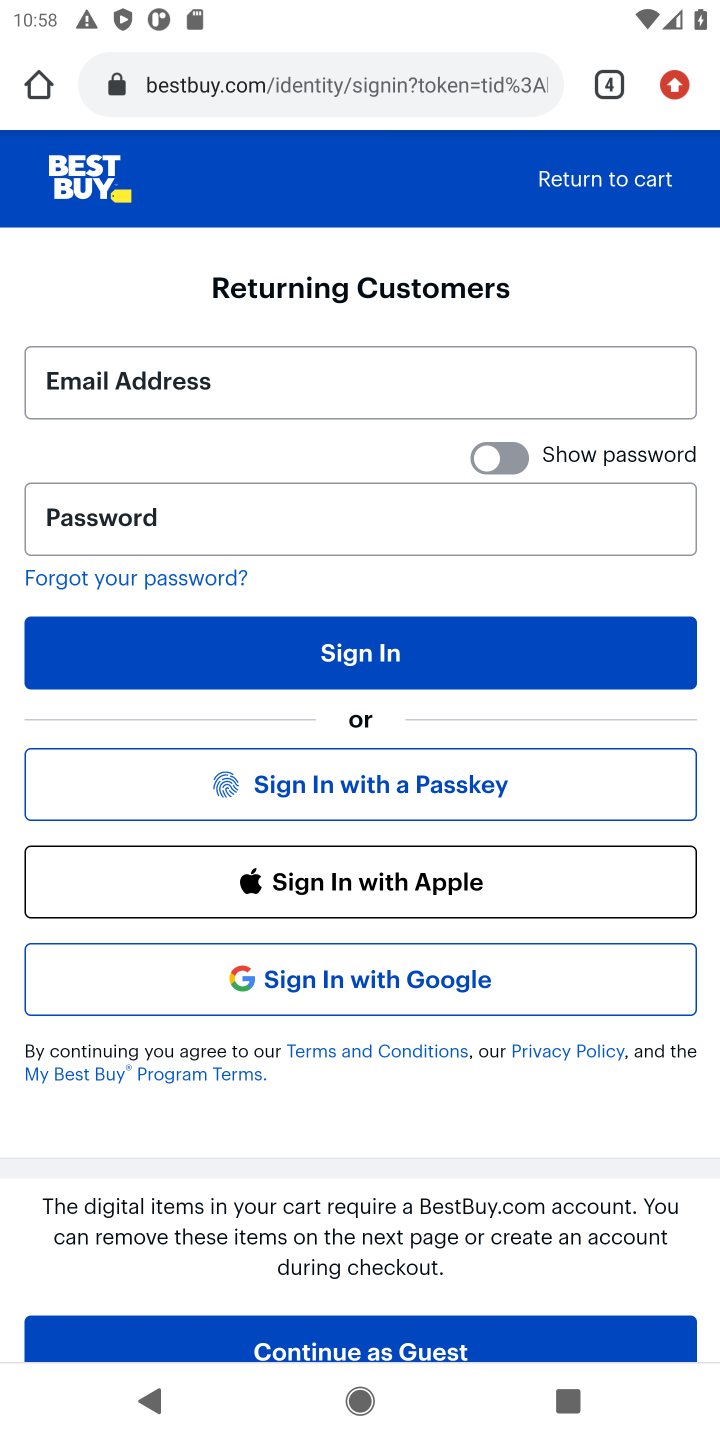
Step 28: task complete